Your task to perform on an android device: check google app version Image 0: 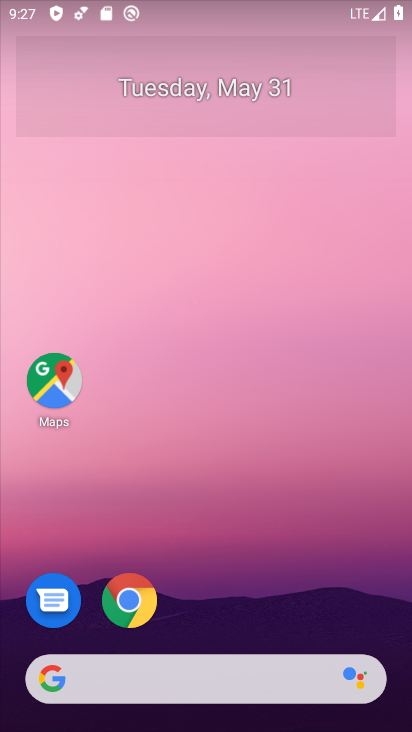
Step 0: drag from (218, 602) to (218, 94)
Your task to perform on an android device: check google app version Image 1: 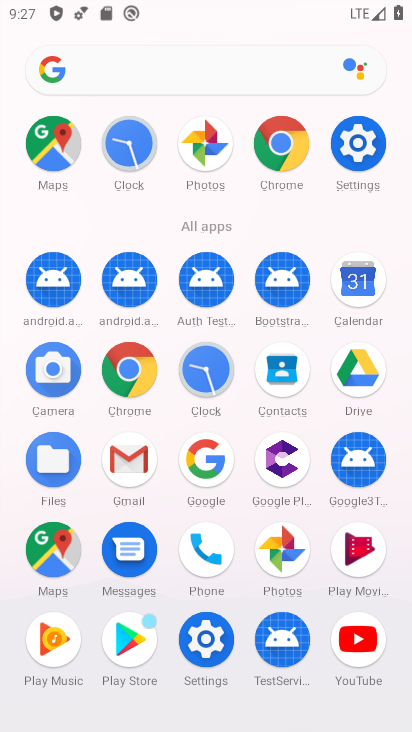
Step 1: click (209, 469)
Your task to perform on an android device: check google app version Image 2: 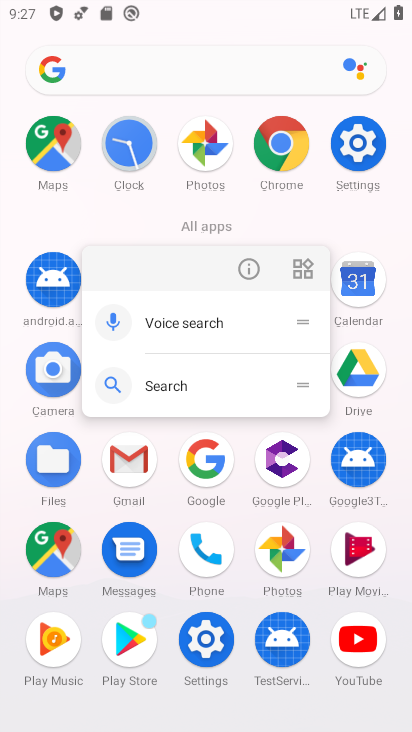
Step 2: click (249, 267)
Your task to perform on an android device: check google app version Image 3: 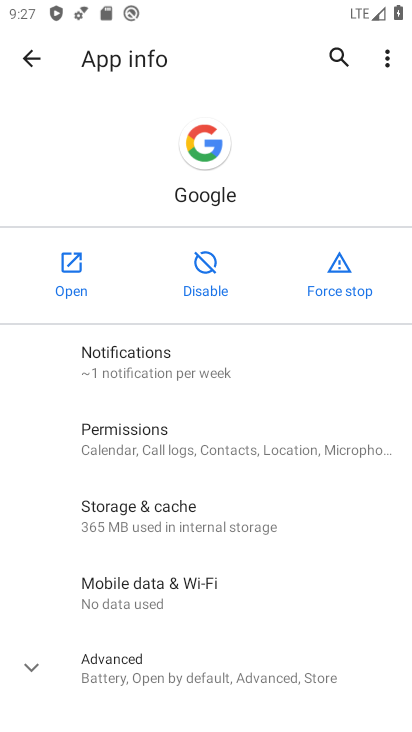
Step 3: drag from (165, 630) to (241, 141)
Your task to perform on an android device: check google app version Image 4: 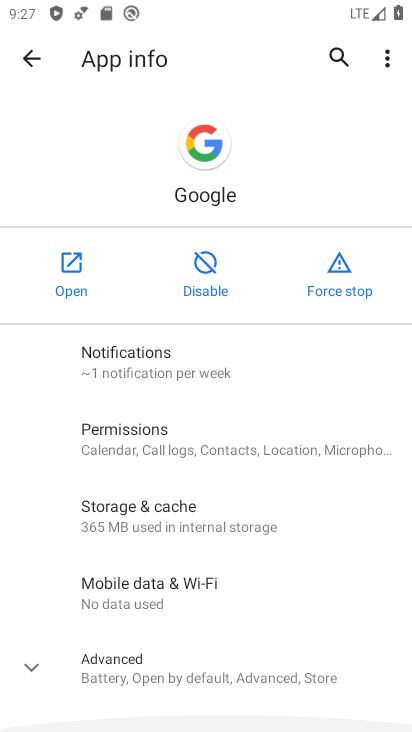
Step 4: drag from (221, 673) to (233, 189)
Your task to perform on an android device: check google app version Image 5: 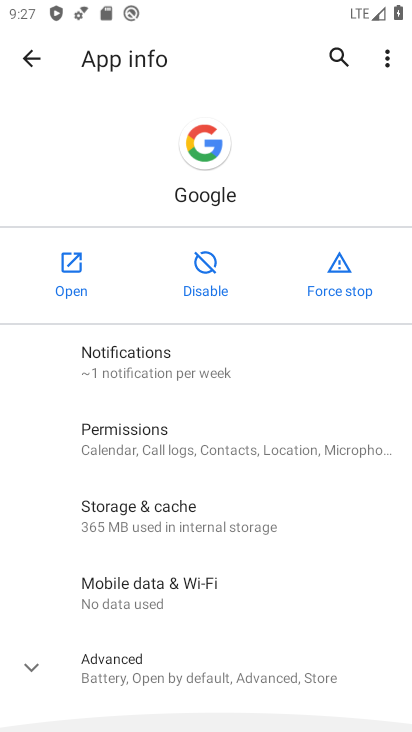
Step 5: click (190, 666)
Your task to perform on an android device: check google app version Image 6: 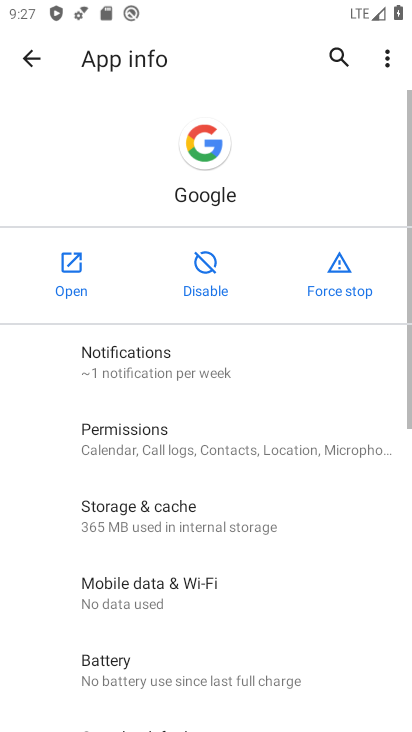
Step 6: task complete